Your task to perform on an android device: Go to eBay Image 0: 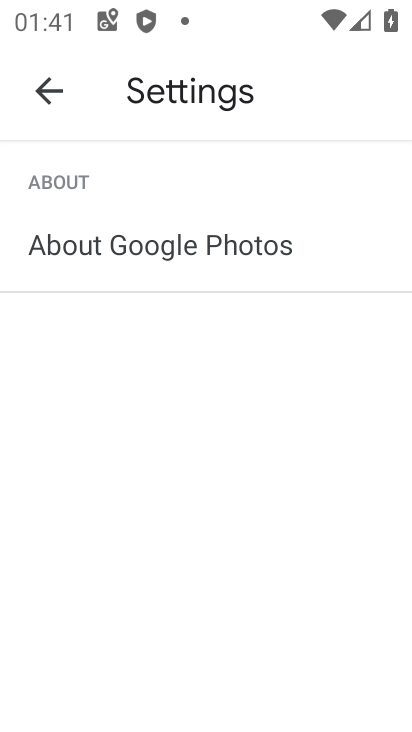
Step 0: press home button
Your task to perform on an android device: Go to eBay Image 1: 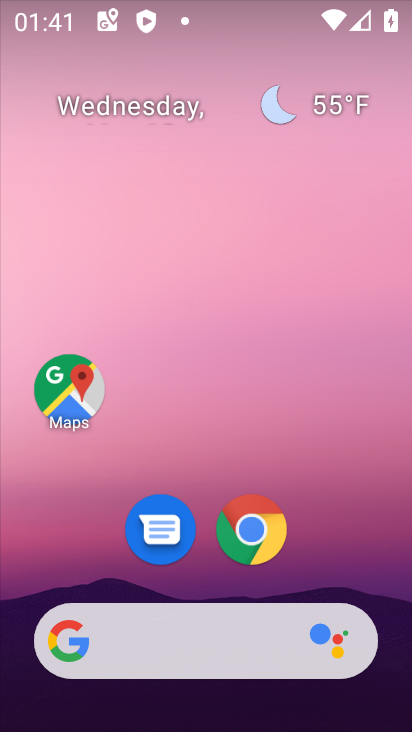
Step 1: click (255, 529)
Your task to perform on an android device: Go to eBay Image 2: 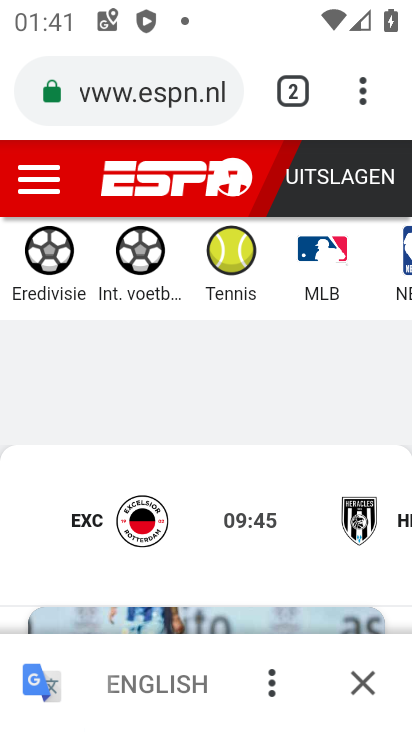
Step 2: click (362, 99)
Your task to perform on an android device: Go to eBay Image 3: 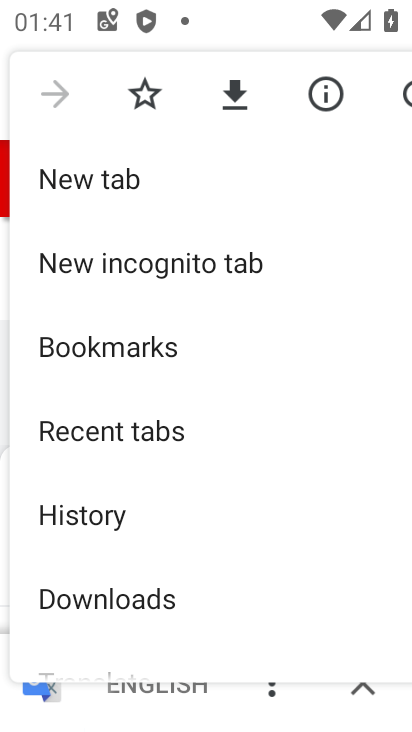
Step 3: click (78, 171)
Your task to perform on an android device: Go to eBay Image 4: 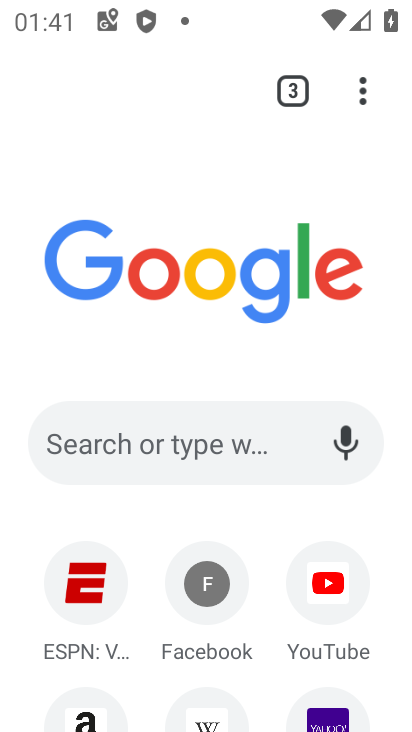
Step 4: click (201, 456)
Your task to perform on an android device: Go to eBay Image 5: 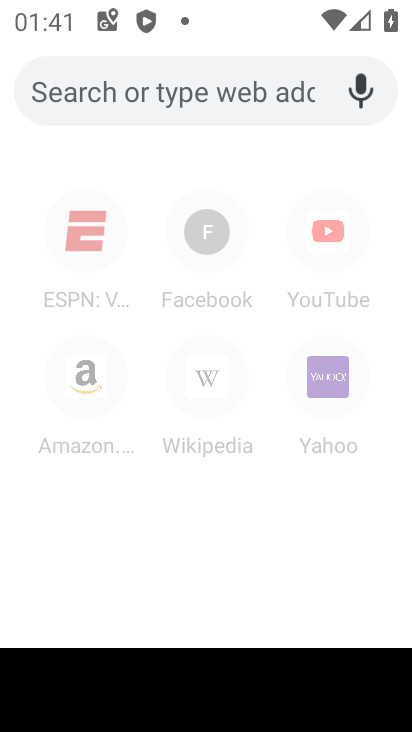
Step 5: type "eBay"
Your task to perform on an android device: Go to eBay Image 6: 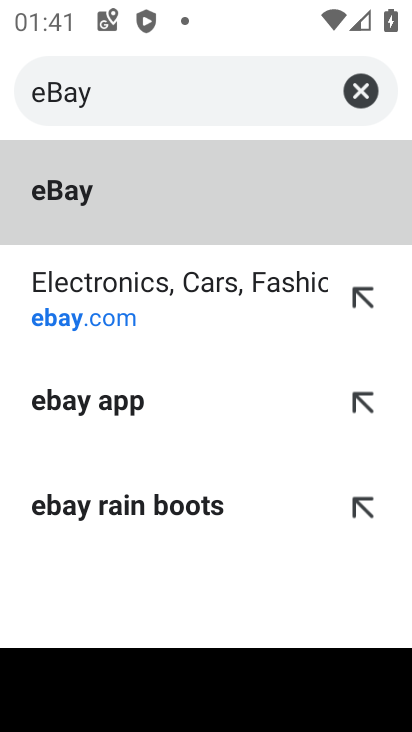
Step 6: click (63, 186)
Your task to perform on an android device: Go to eBay Image 7: 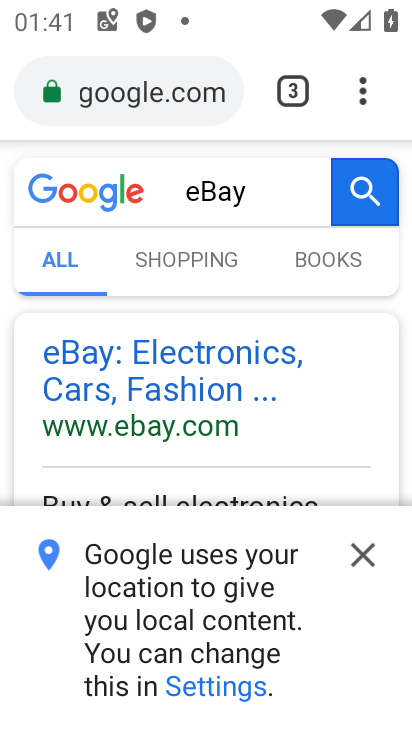
Step 7: click (123, 377)
Your task to perform on an android device: Go to eBay Image 8: 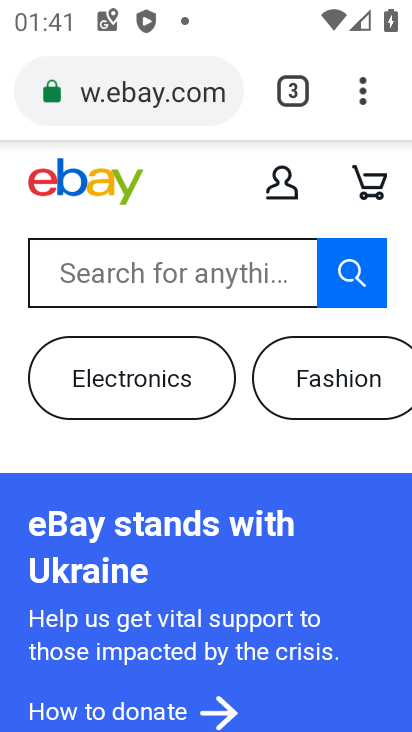
Step 8: task complete